Your task to perform on an android device: Open the phone app and click the voicemail tab. Image 0: 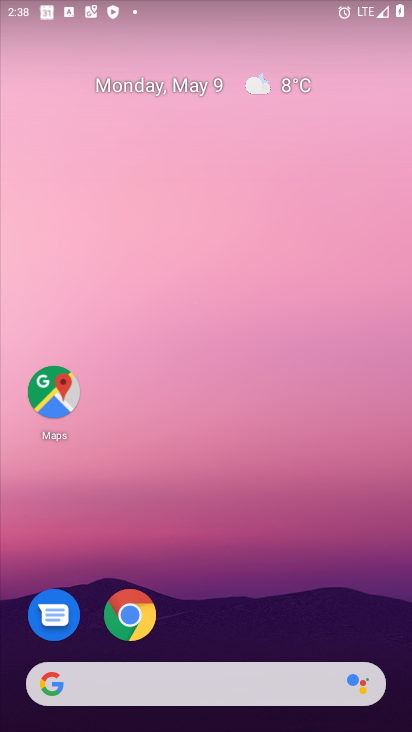
Step 0: drag from (386, 640) to (344, 80)
Your task to perform on an android device: Open the phone app and click the voicemail tab. Image 1: 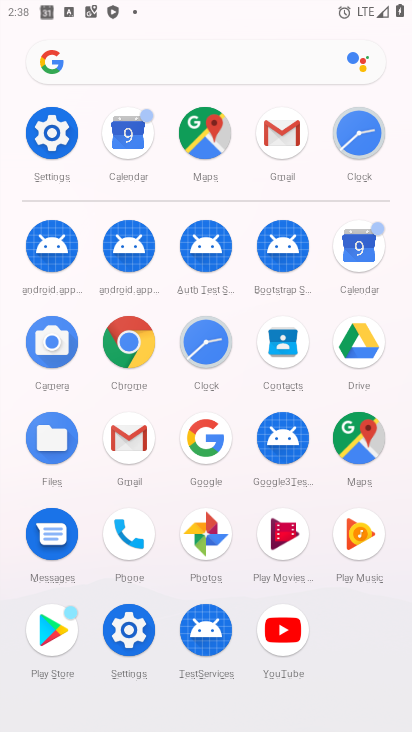
Step 1: click (123, 533)
Your task to perform on an android device: Open the phone app and click the voicemail tab. Image 2: 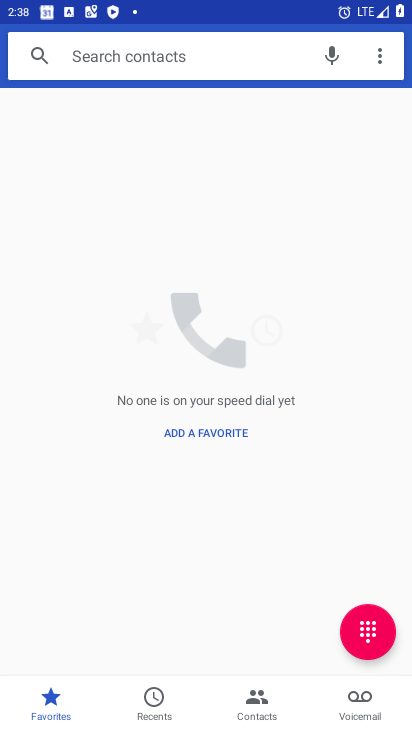
Step 2: click (359, 697)
Your task to perform on an android device: Open the phone app and click the voicemail tab. Image 3: 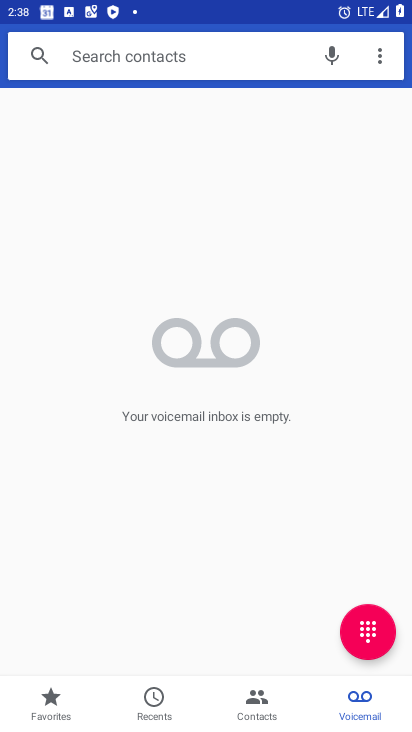
Step 3: task complete